Your task to perform on an android device: Go to CNN.com Image 0: 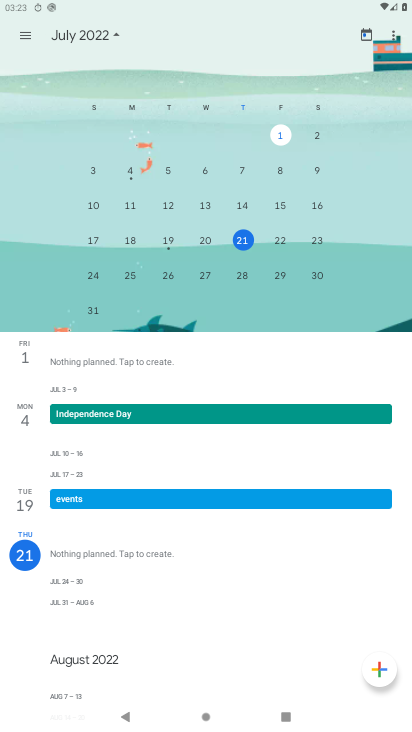
Step 0: press home button
Your task to perform on an android device: Go to CNN.com Image 1: 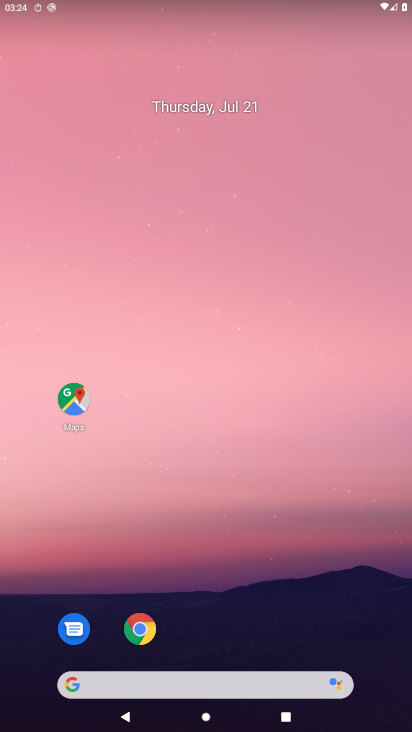
Step 1: click (118, 680)
Your task to perform on an android device: Go to CNN.com Image 2: 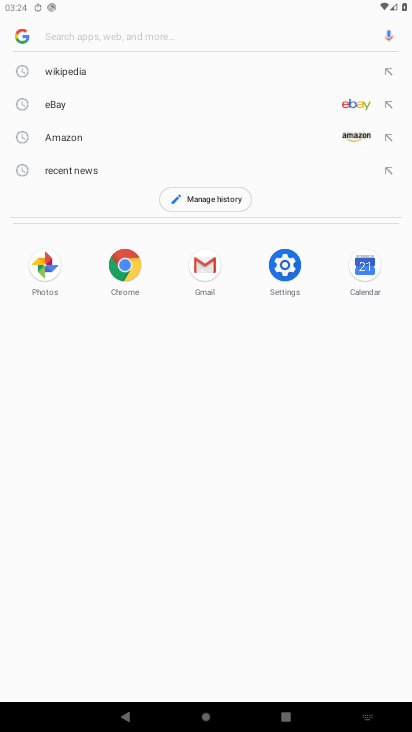
Step 2: type "CNN.com"
Your task to perform on an android device: Go to CNN.com Image 3: 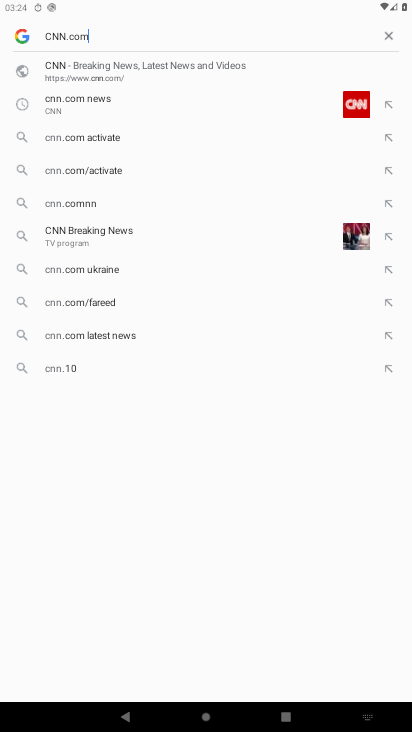
Step 3: type ""
Your task to perform on an android device: Go to CNN.com Image 4: 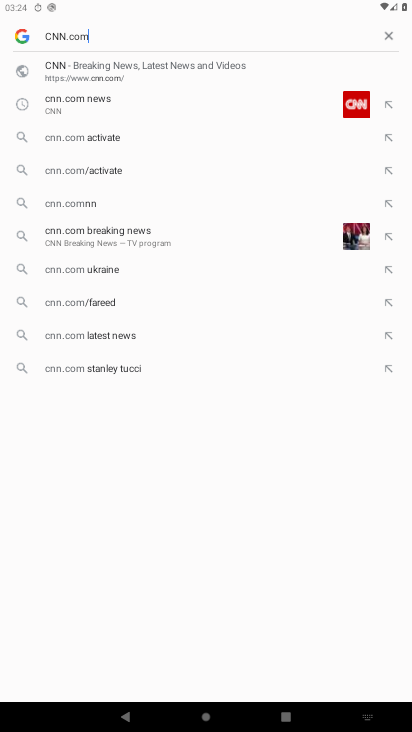
Step 4: task complete